Your task to perform on an android device: turn notification dots off Image 0: 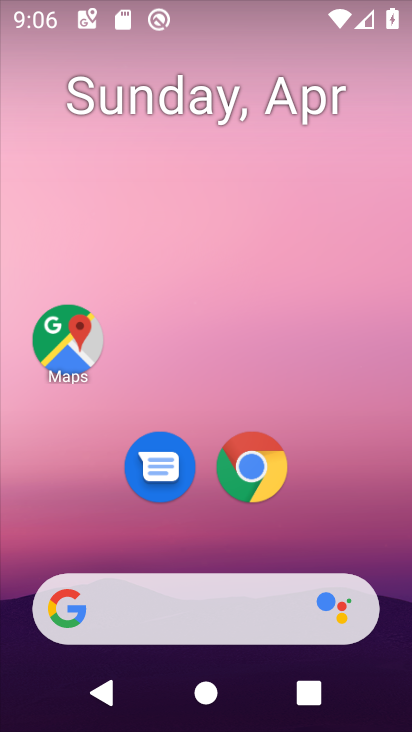
Step 0: drag from (306, 527) to (380, 28)
Your task to perform on an android device: turn notification dots off Image 1: 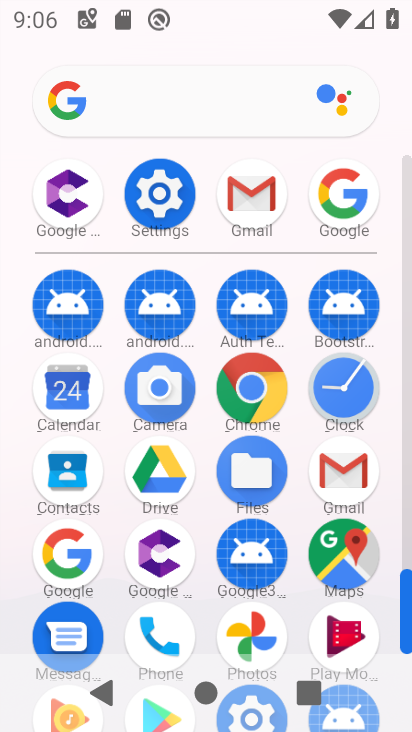
Step 1: click (134, 183)
Your task to perform on an android device: turn notification dots off Image 2: 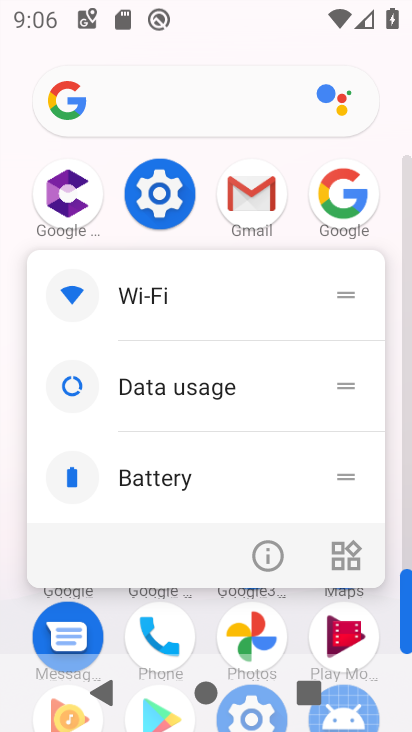
Step 2: click (143, 198)
Your task to perform on an android device: turn notification dots off Image 3: 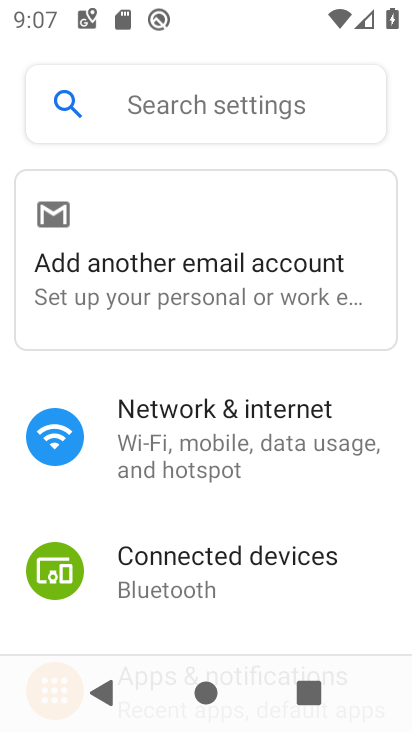
Step 3: drag from (176, 502) to (236, 289)
Your task to perform on an android device: turn notification dots off Image 4: 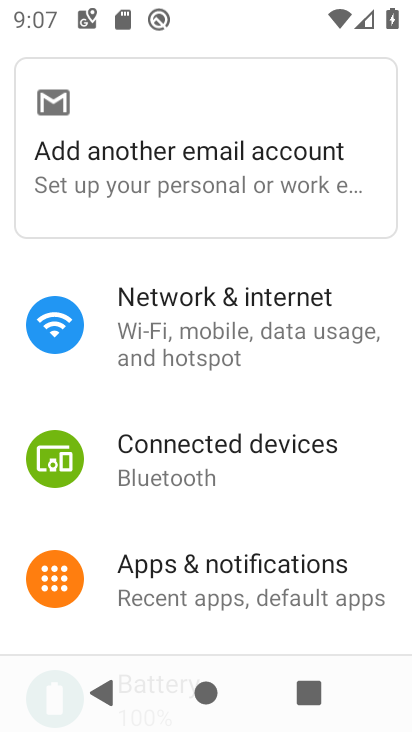
Step 4: click (178, 564)
Your task to perform on an android device: turn notification dots off Image 5: 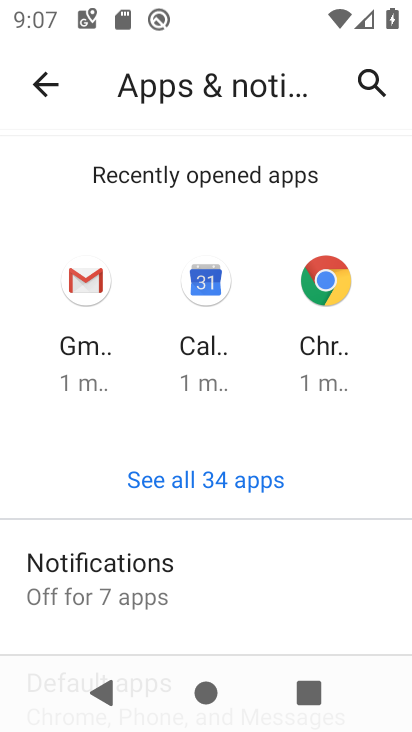
Step 5: drag from (151, 605) to (223, 439)
Your task to perform on an android device: turn notification dots off Image 6: 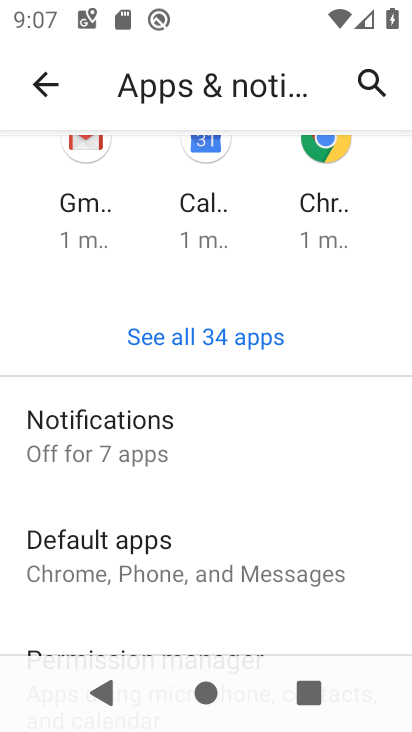
Step 6: click (230, 429)
Your task to perform on an android device: turn notification dots off Image 7: 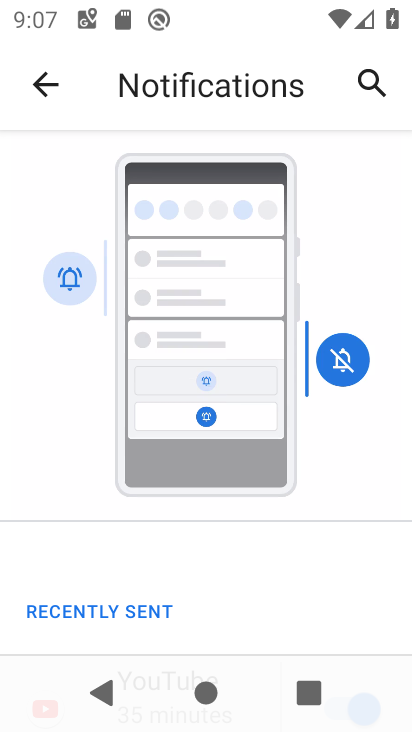
Step 7: drag from (170, 556) to (223, 384)
Your task to perform on an android device: turn notification dots off Image 8: 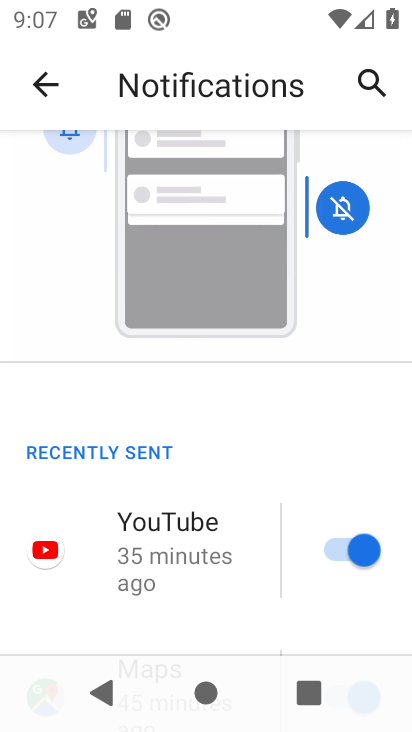
Step 8: drag from (226, 447) to (261, 328)
Your task to perform on an android device: turn notification dots off Image 9: 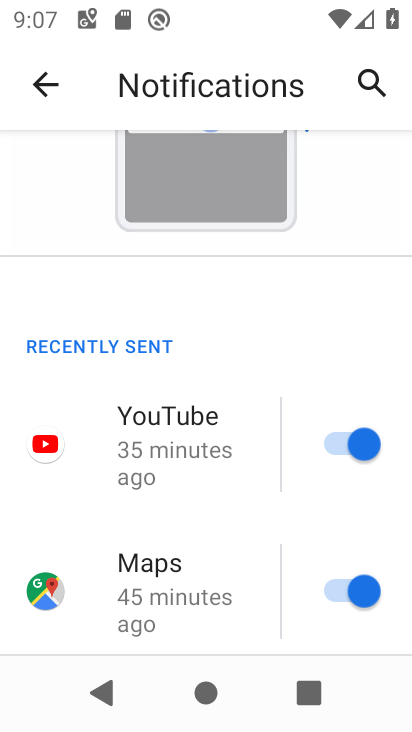
Step 9: drag from (219, 467) to (276, 281)
Your task to perform on an android device: turn notification dots off Image 10: 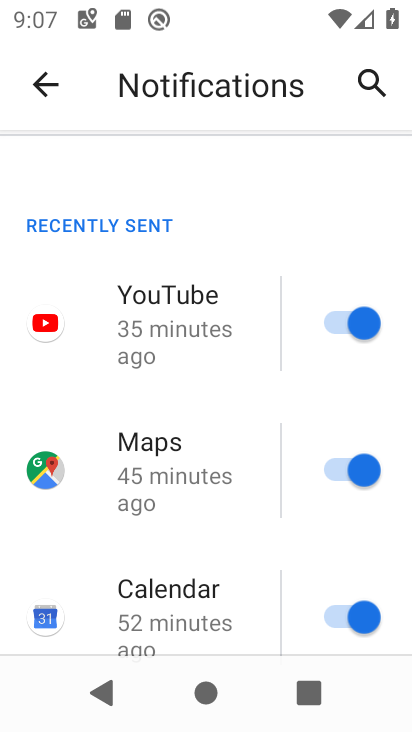
Step 10: drag from (210, 597) to (271, 384)
Your task to perform on an android device: turn notification dots off Image 11: 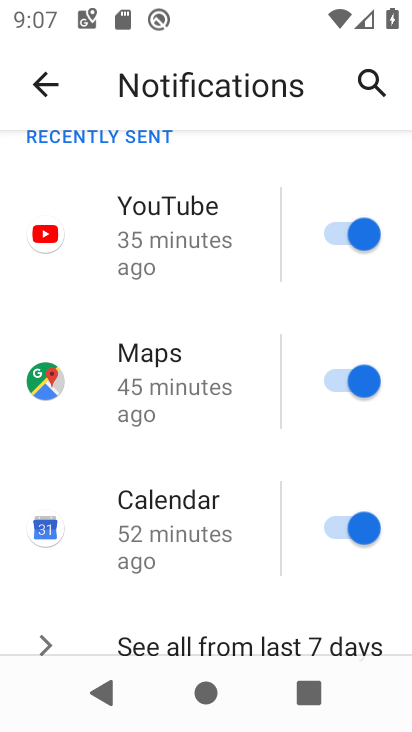
Step 11: drag from (216, 484) to (258, 343)
Your task to perform on an android device: turn notification dots off Image 12: 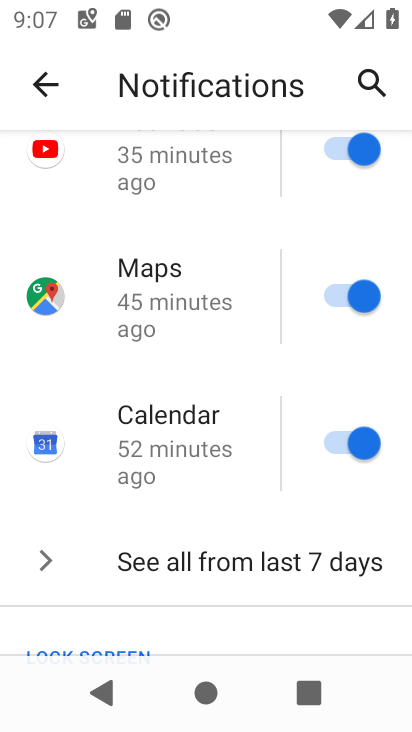
Step 12: drag from (198, 610) to (249, 404)
Your task to perform on an android device: turn notification dots off Image 13: 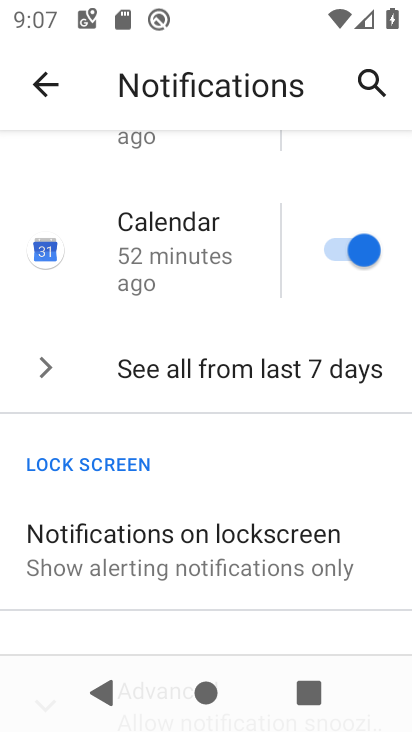
Step 13: drag from (227, 569) to (265, 410)
Your task to perform on an android device: turn notification dots off Image 14: 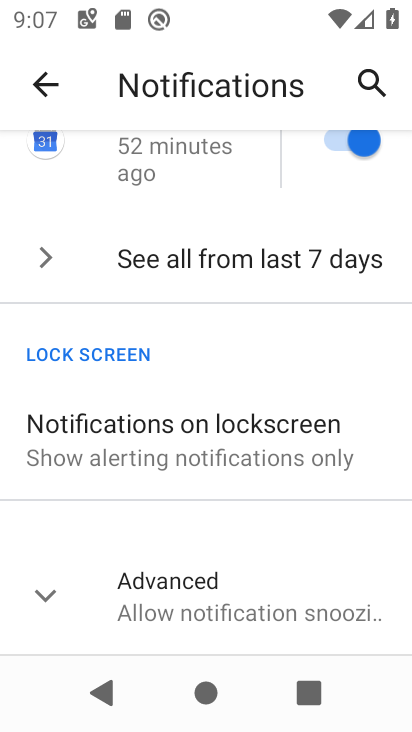
Step 14: click (235, 594)
Your task to perform on an android device: turn notification dots off Image 15: 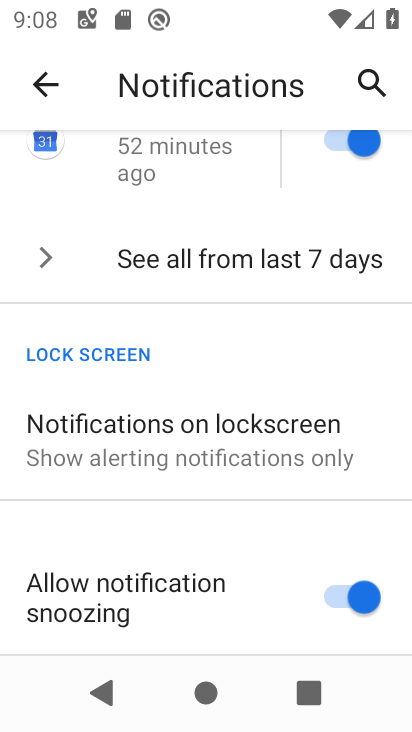
Step 15: drag from (205, 617) to (268, 336)
Your task to perform on an android device: turn notification dots off Image 16: 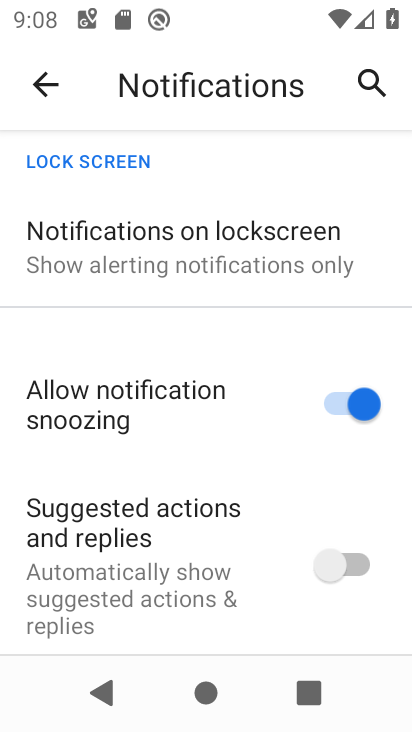
Step 16: drag from (221, 619) to (273, 437)
Your task to perform on an android device: turn notification dots off Image 17: 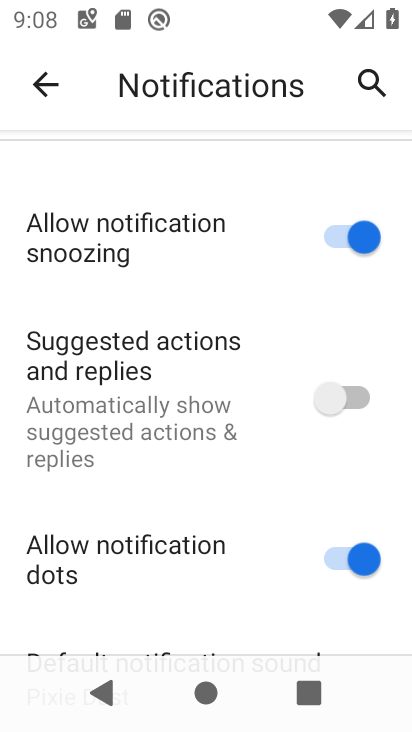
Step 17: drag from (239, 561) to (286, 401)
Your task to perform on an android device: turn notification dots off Image 18: 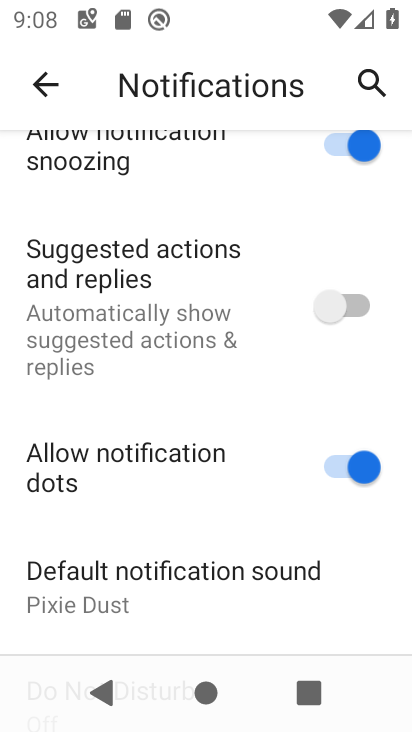
Step 18: click (341, 462)
Your task to perform on an android device: turn notification dots off Image 19: 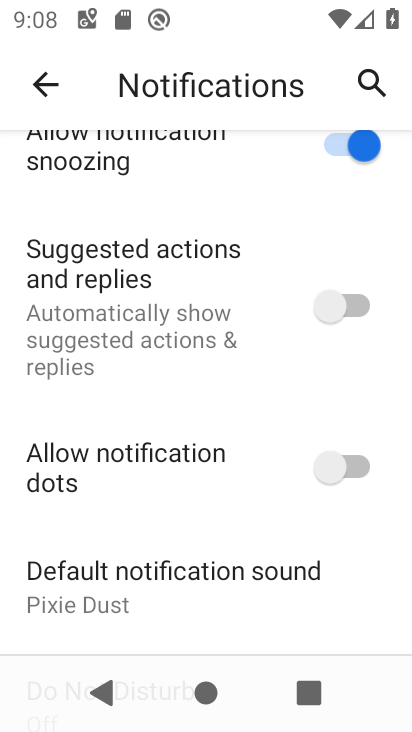
Step 19: task complete